Your task to perform on an android device: toggle priority inbox in the gmail app Image 0: 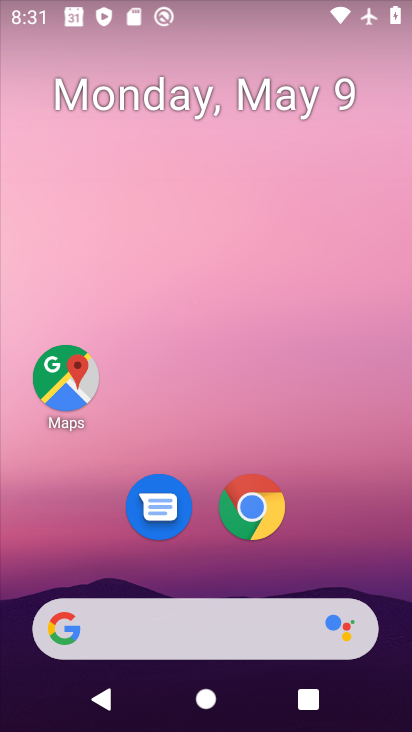
Step 0: drag from (198, 586) to (135, 3)
Your task to perform on an android device: toggle priority inbox in the gmail app Image 1: 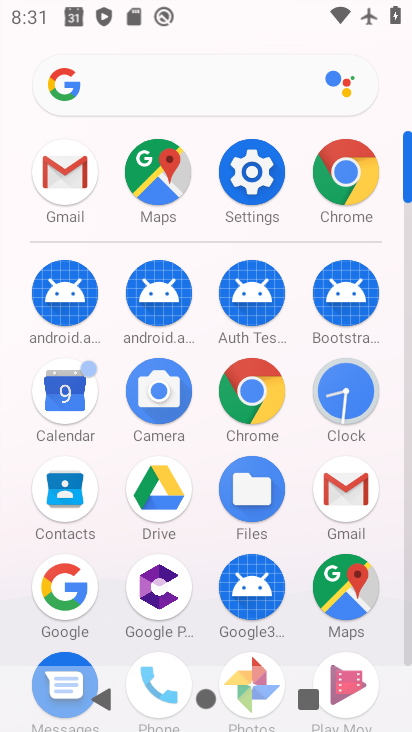
Step 1: click (351, 492)
Your task to perform on an android device: toggle priority inbox in the gmail app Image 2: 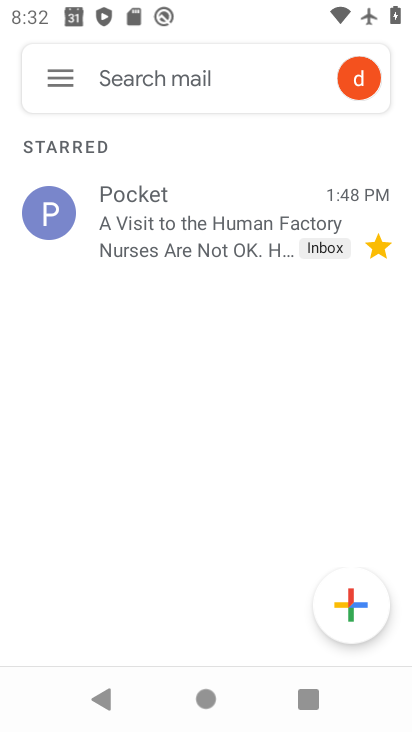
Step 2: click (63, 84)
Your task to perform on an android device: toggle priority inbox in the gmail app Image 3: 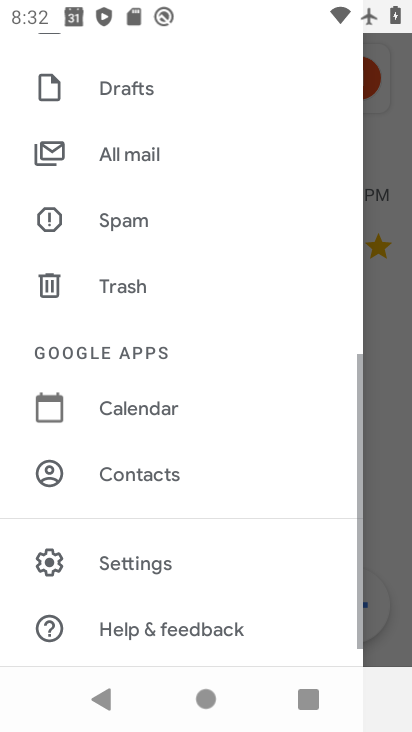
Step 3: click (120, 558)
Your task to perform on an android device: toggle priority inbox in the gmail app Image 4: 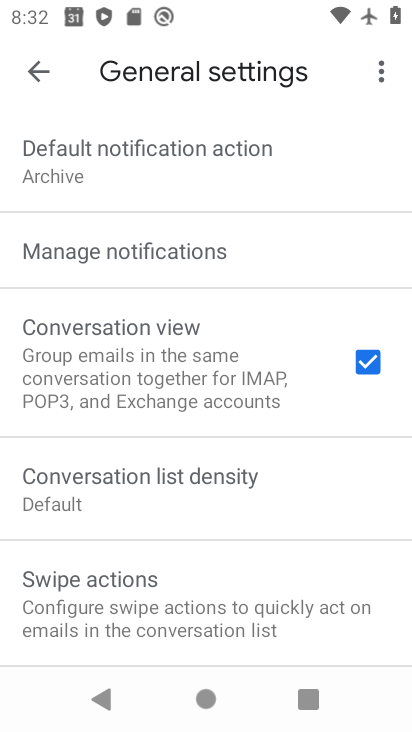
Step 4: click (52, 60)
Your task to perform on an android device: toggle priority inbox in the gmail app Image 5: 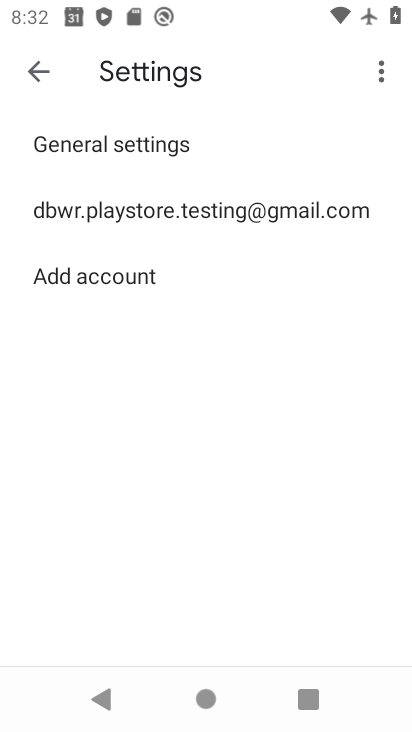
Step 5: click (101, 203)
Your task to perform on an android device: toggle priority inbox in the gmail app Image 6: 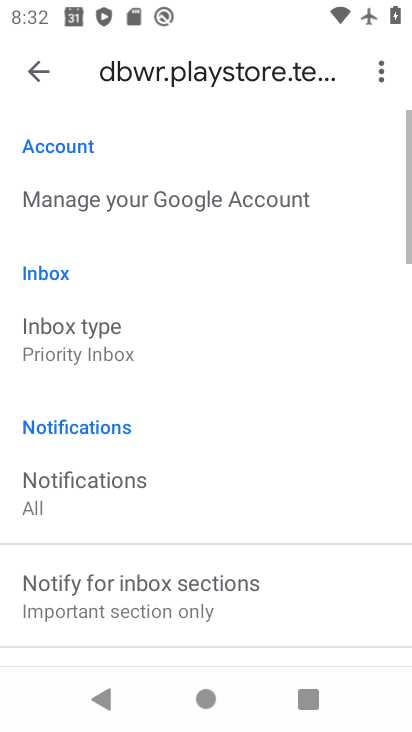
Step 6: click (84, 334)
Your task to perform on an android device: toggle priority inbox in the gmail app Image 7: 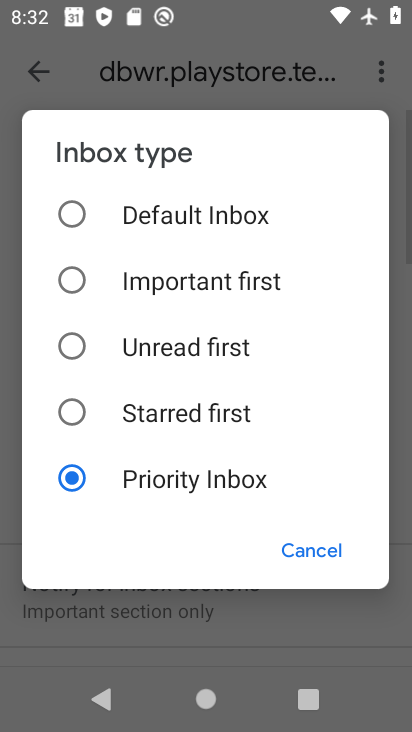
Step 7: click (119, 415)
Your task to perform on an android device: toggle priority inbox in the gmail app Image 8: 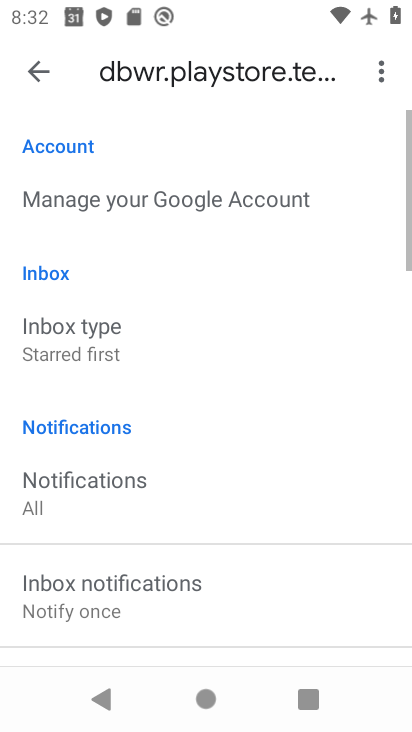
Step 8: task complete